Your task to perform on an android device: Go to Maps Image 0: 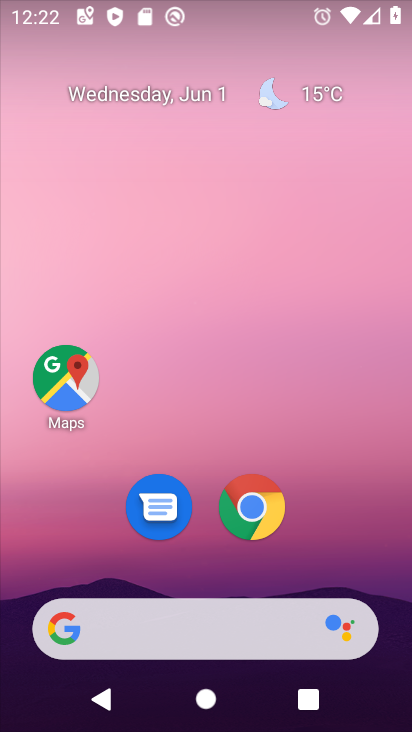
Step 0: click (67, 381)
Your task to perform on an android device: Go to Maps Image 1: 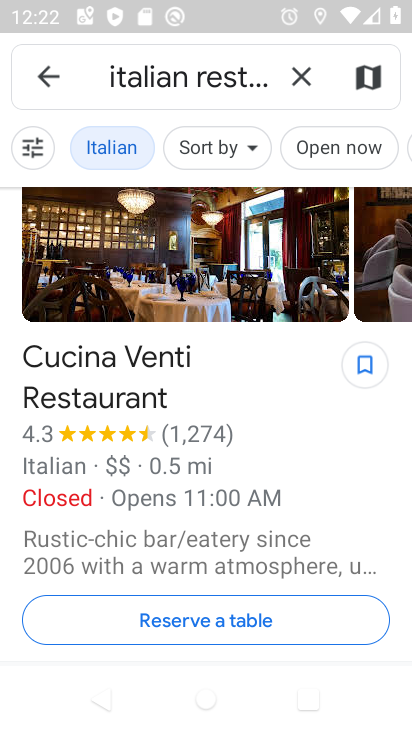
Step 1: click (303, 73)
Your task to perform on an android device: Go to Maps Image 2: 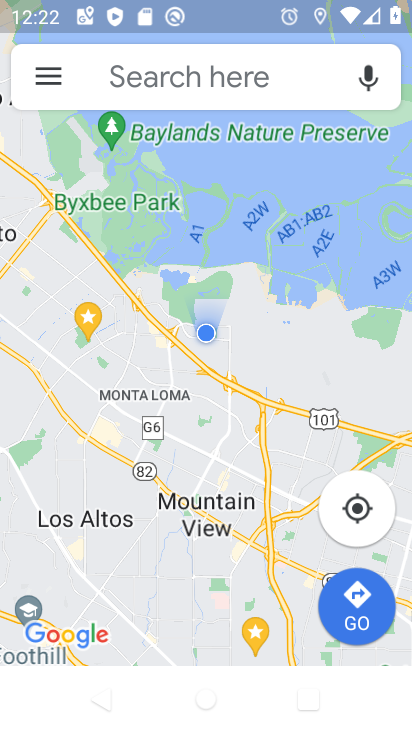
Step 2: task complete